Your task to perform on an android device: change the clock display to show seconds Image 0: 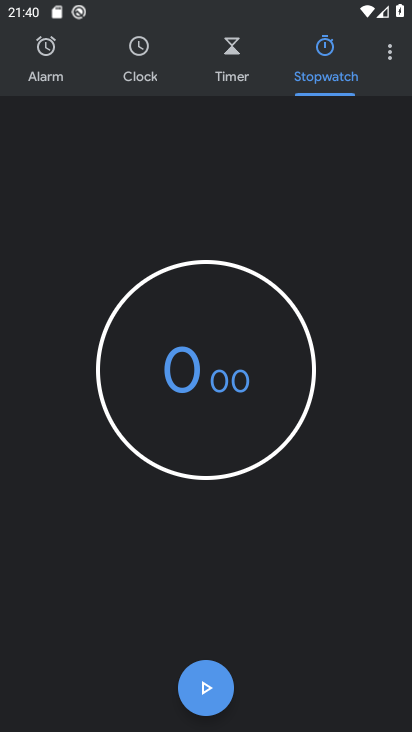
Step 0: press home button
Your task to perform on an android device: change the clock display to show seconds Image 1: 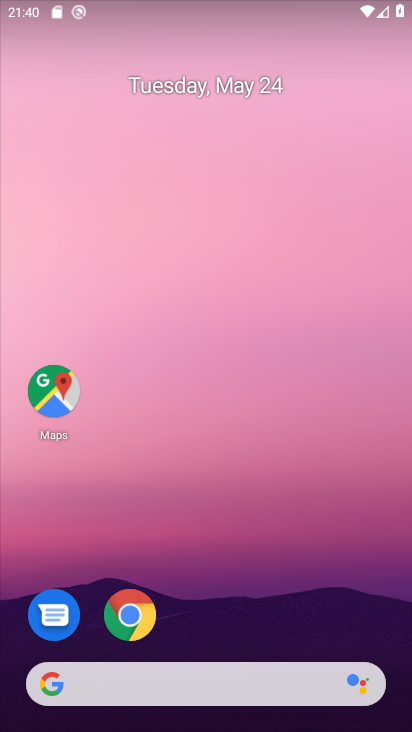
Step 1: drag from (280, 580) to (279, 257)
Your task to perform on an android device: change the clock display to show seconds Image 2: 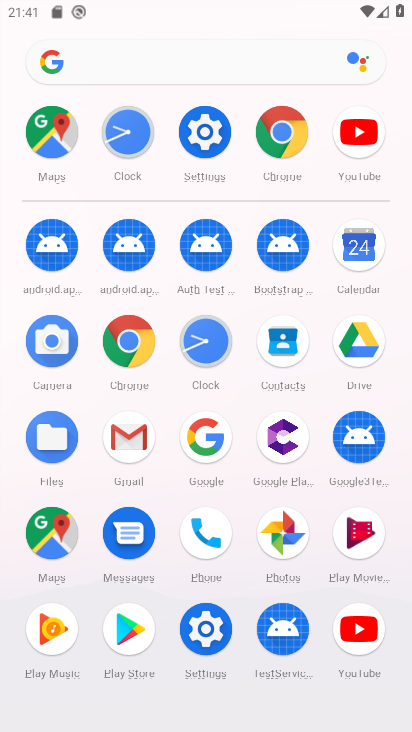
Step 2: click (196, 333)
Your task to perform on an android device: change the clock display to show seconds Image 3: 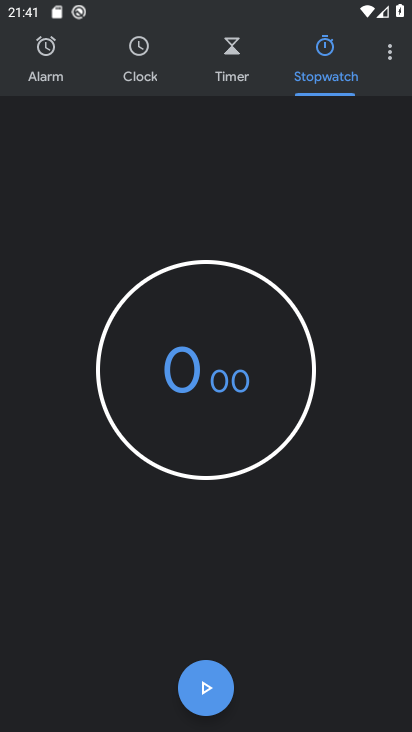
Step 3: click (377, 57)
Your task to perform on an android device: change the clock display to show seconds Image 4: 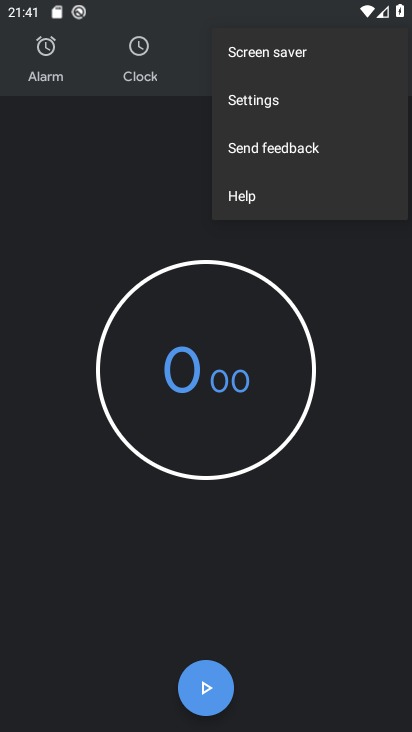
Step 4: click (302, 113)
Your task to perform on an android device: change the clock display to show seconds Image 5: 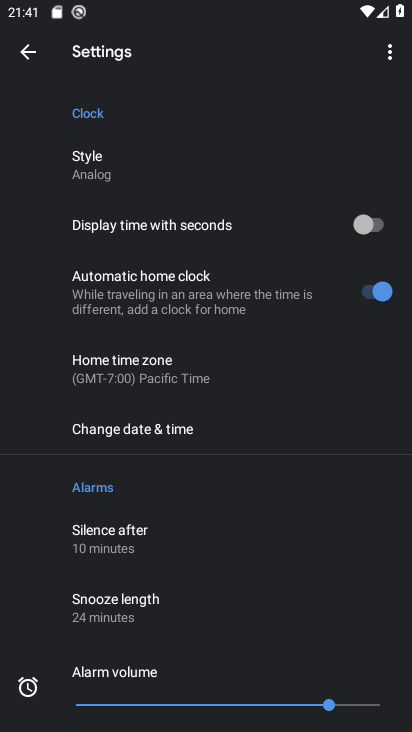
Step 5: click (365, 221)
Your task to perform on an android device: change the clock display to show seconds Image 6: 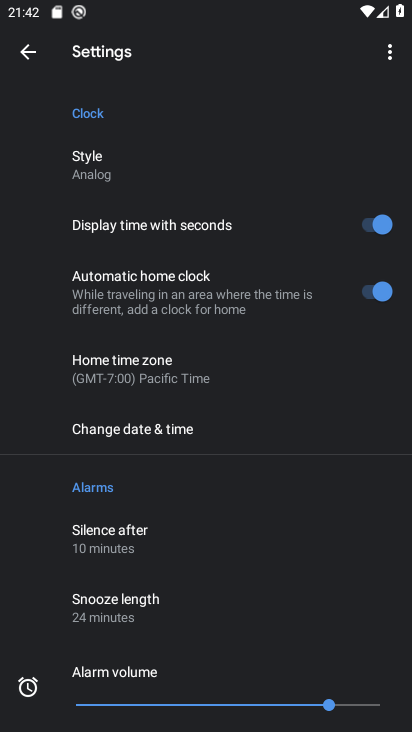
Step 6: task complete